Your task to perform on an android device: Open privacy settings Image 0: 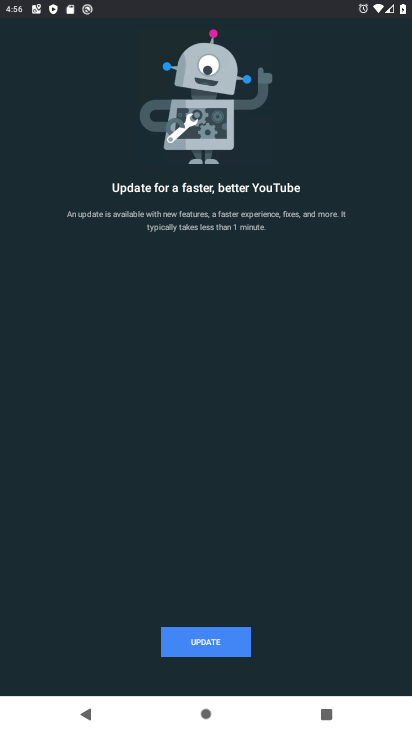
Step 0: press home button
Your task to perform on an android device: Open privacy settings Image 1: 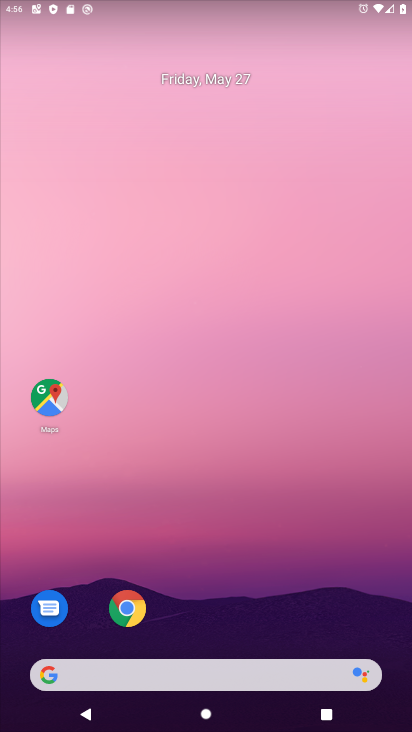
Step 1: drag from (256, 390) to (256, 211)
Your task to perform on an android device: Open privacy settings Image 2: 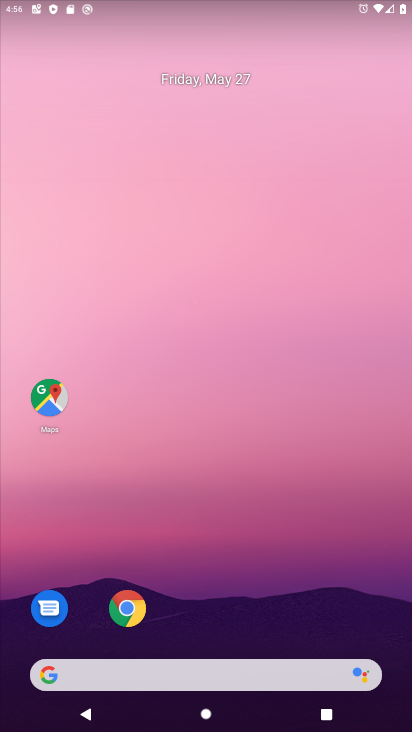
Step 2: drag from (250, 653) to (272, 93)
Your task to perform on an android device: Open privacy settings Image 3: 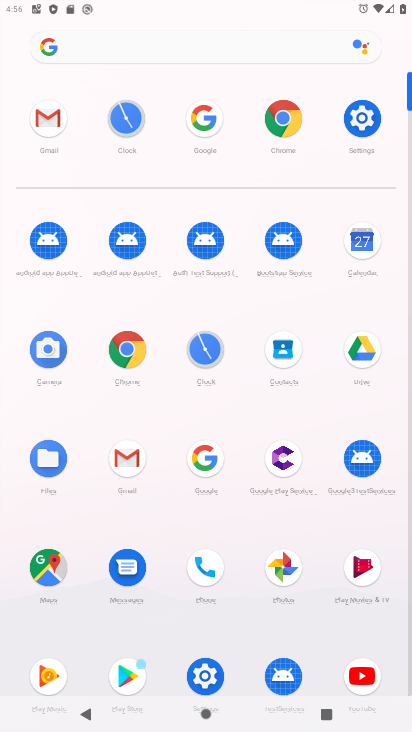
Step 3: click (365, 128)
Your task to perform on an android device: Open privacy settings Image 4: 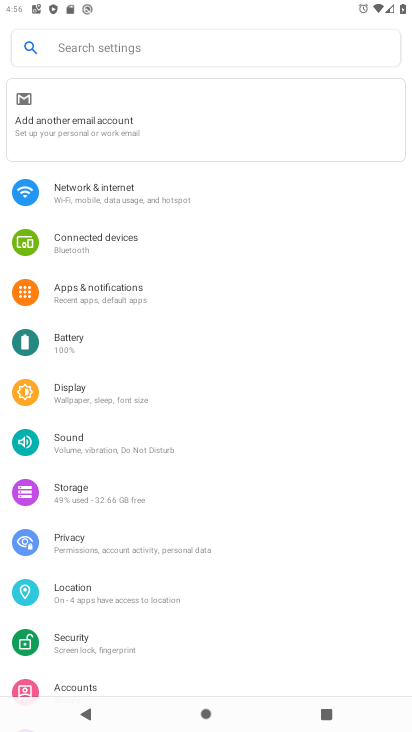
Step 4: click (95, 547)
Your task to perform on an android device: Open privacy settings Image 5: 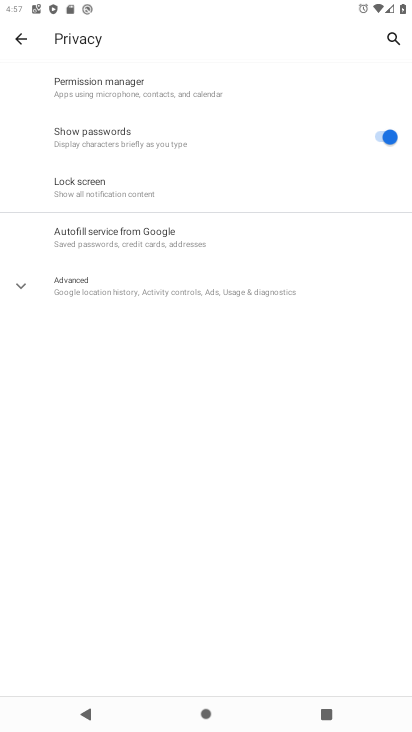
Step 5: click (164, 277)
Your task to perform on an android device: Open privacy settings Image 6: 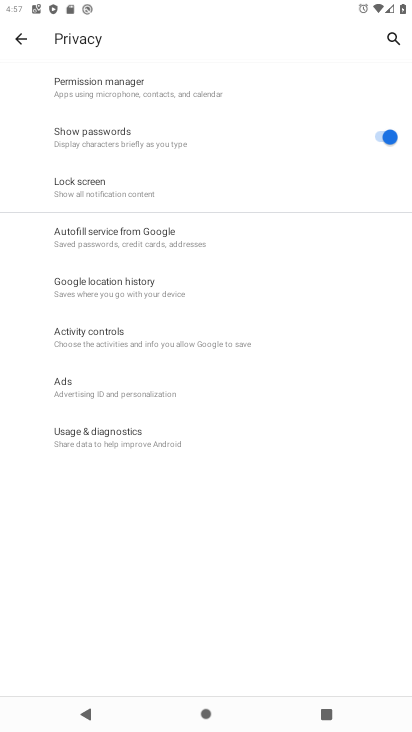
Step 6: task complete